Your task to perform on an android device: Go to settings Image 0: 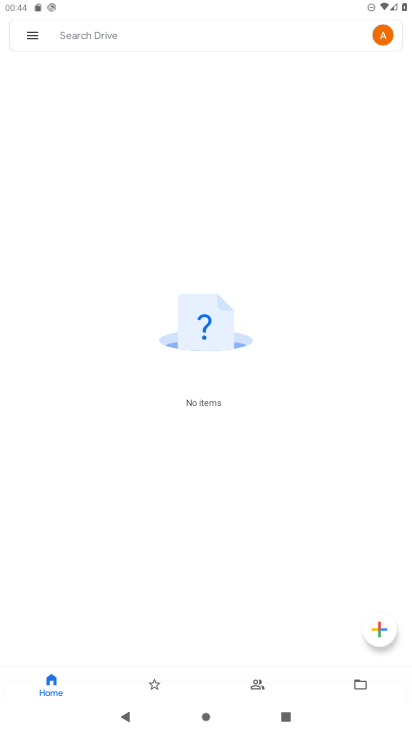
Step 0: drag from (341, 7) to (332, 615)
Your task to perform on an android device: Go to settings Image 1: 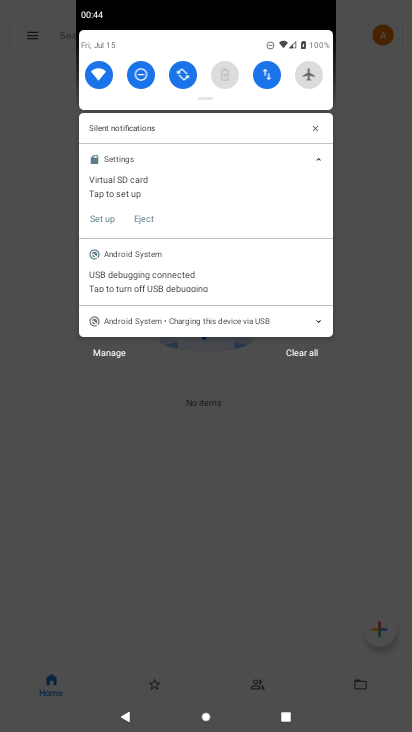
Step 1: drag from (214, 67) to (284, 560)
Your task to perform on an android device: Go to settings Image 2: 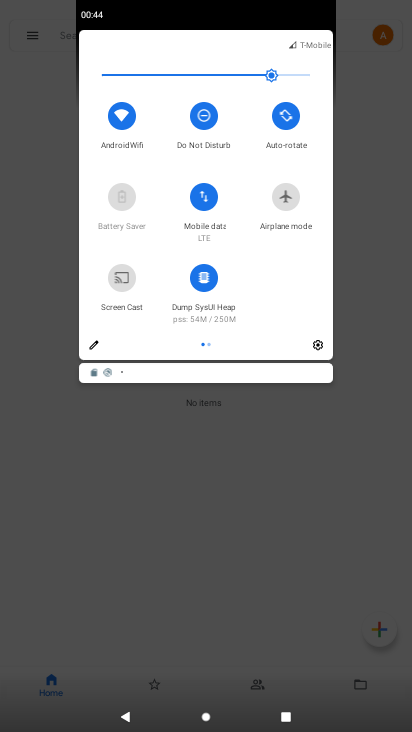
Step 2: click (319, 344)
Your task to perform on an android device: Go to settings Image 3: 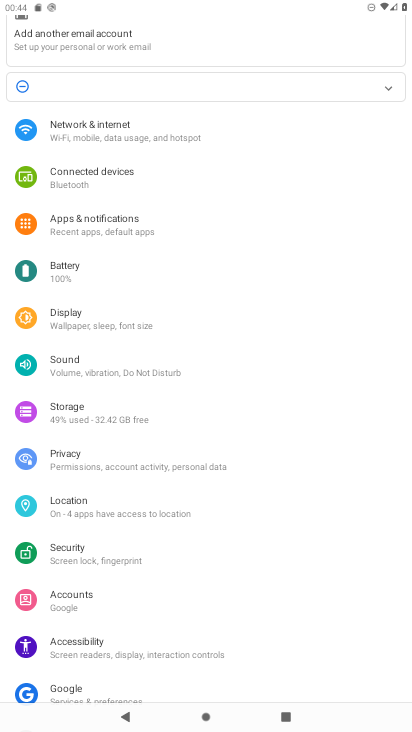
Step 3: task complete